Your task to perform on an android device: check storage Image 0: 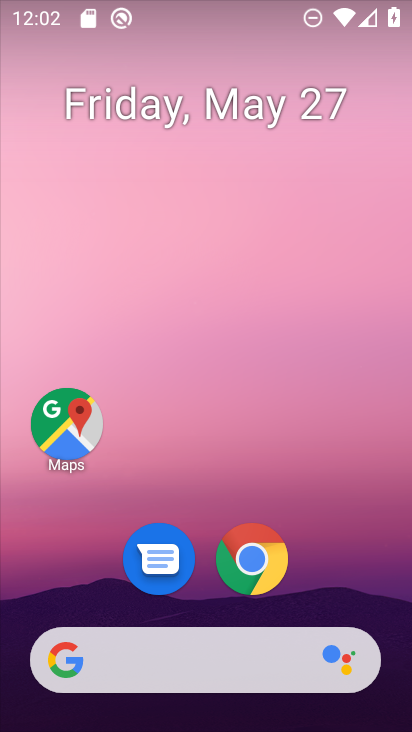
Step 0: drag from (307, 526) to (382, 71)
Your task to perform on an android device: check storage Image 1: 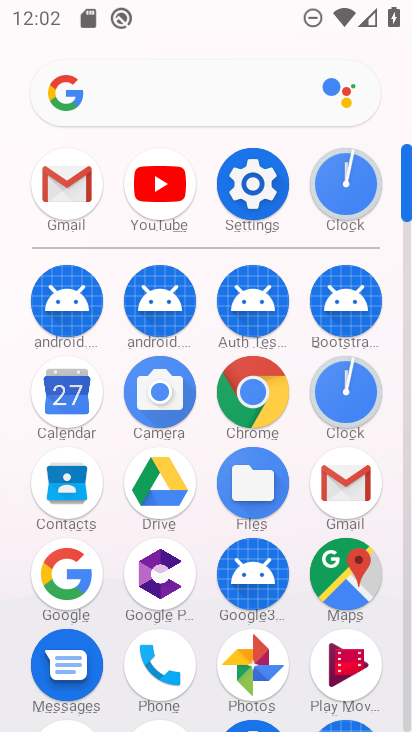
Step 1: click (235, 193)
Your task to perform on an android device: check storage Image 2: 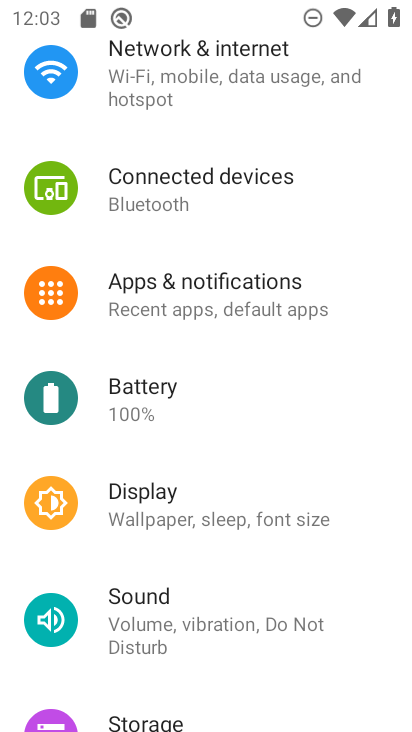
Step 2: click (207, 704)
Your task to perform on an android device: check storage Image 3: 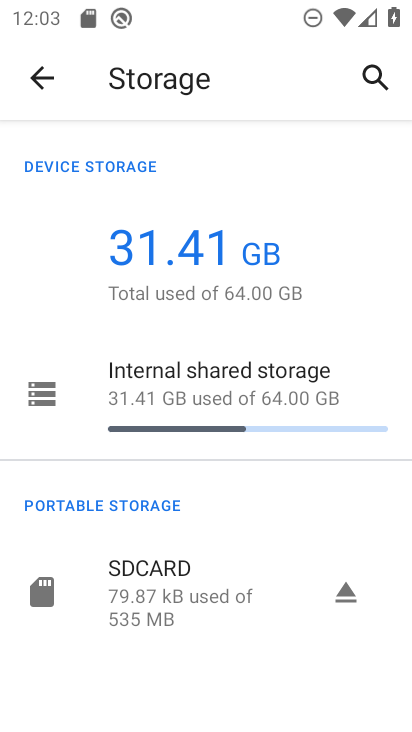
Step 3: task complete